Your task to perform on an android device: turn on bluetooth scan Image 0: 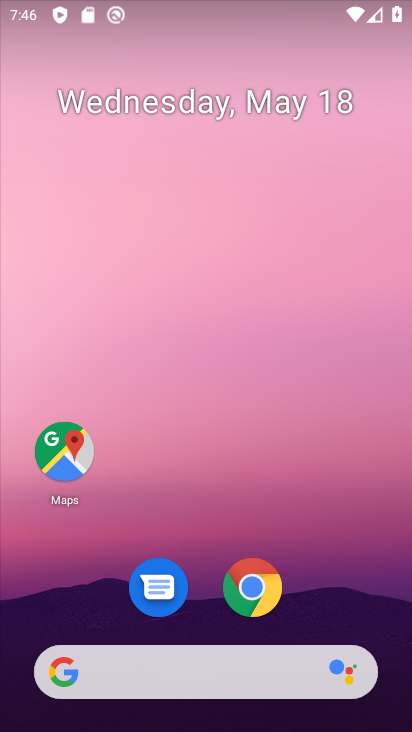
Step 0: drag from (300, 682) to (310, 127)
Your task to perform on an android device: turn on bluetooth scan Image 1: 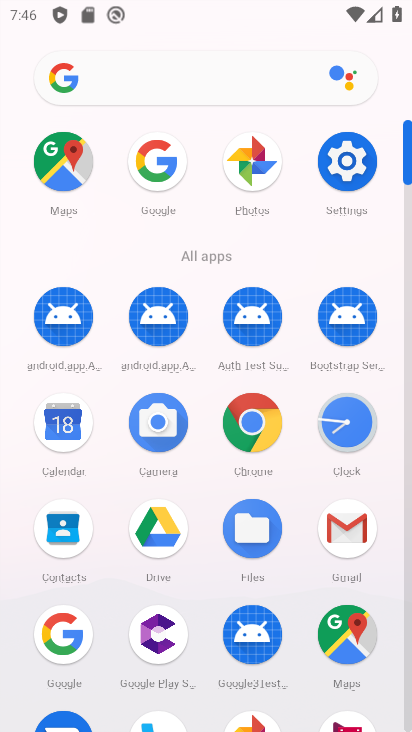
Step 1: click (352, 178)
Your task to perform on an android device: turn on bluetooth scan Image 2: 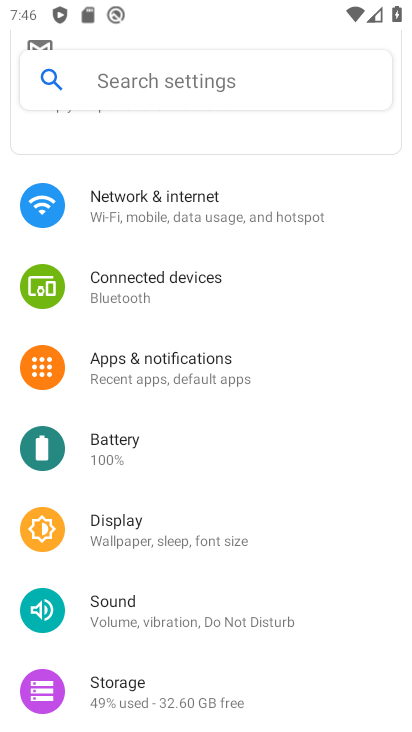
Step 2: click (209, 302)
Your task to perform on an android device: turn on bluetooth scan Image 3: 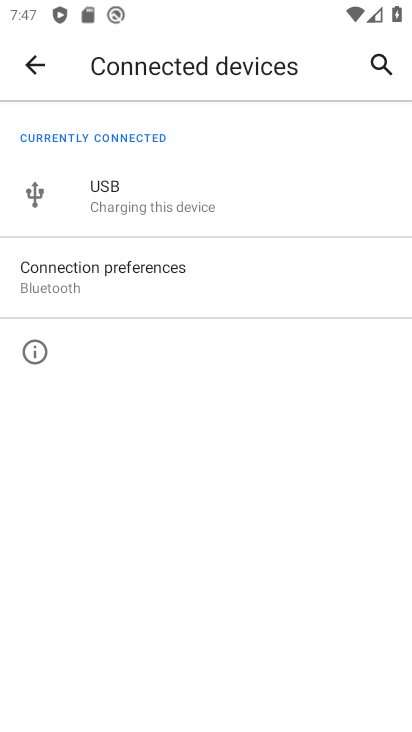
Step 3: click (127, 279)
Your task to perform on an android device: turn on bluetooth scan Image 4: 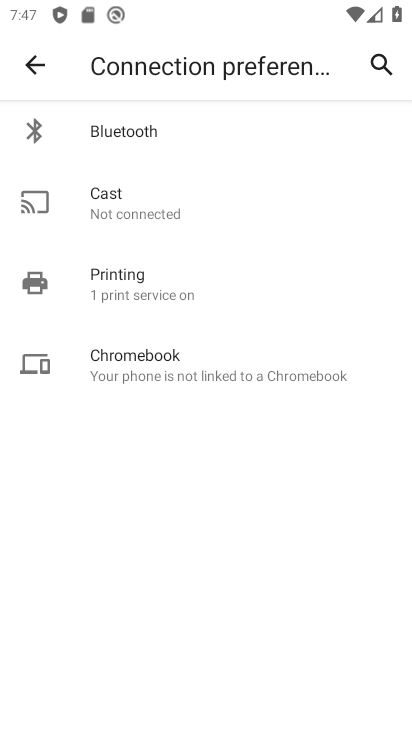
Step 4: click (157, 147)
Your task to perform on an android device: turn on bluetooth scan Image 5: 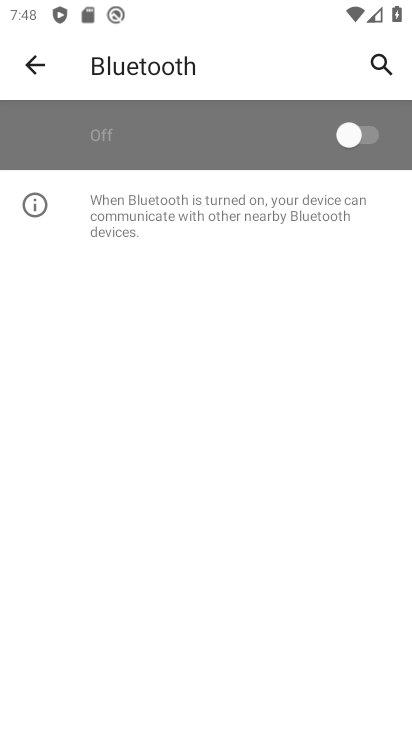
Step 5: task complete